Your task to perform on an android device: Go to network settings Image 0: 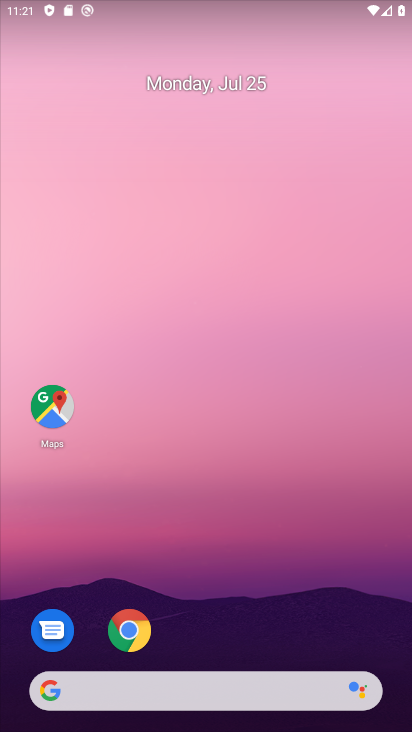
Step 0: click (271, 301)
Your task to perform on an android device: Go to network settings Image 1: 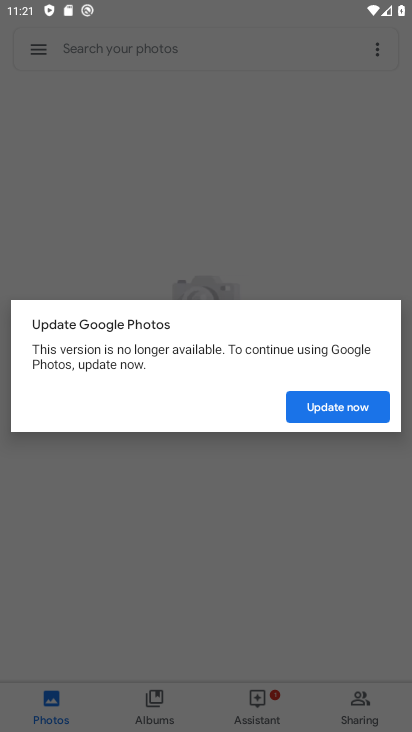
Step 1: click (245, 184)
Your task to perform on an android device: Go to network settings Image 2: 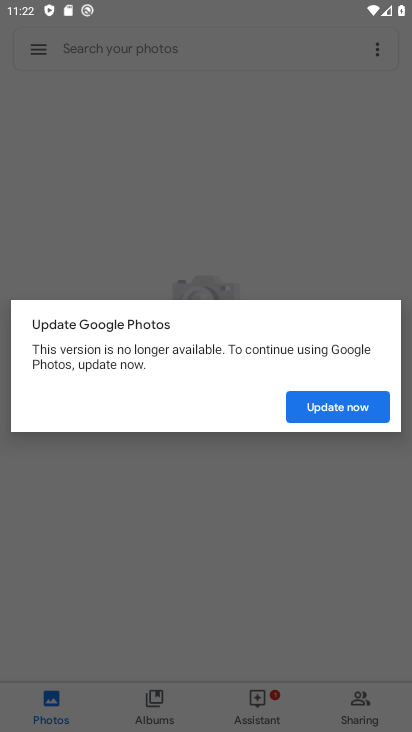
Step 2: click (285, 188)
Your task to perform on an android device: Go to network settings Image 3: 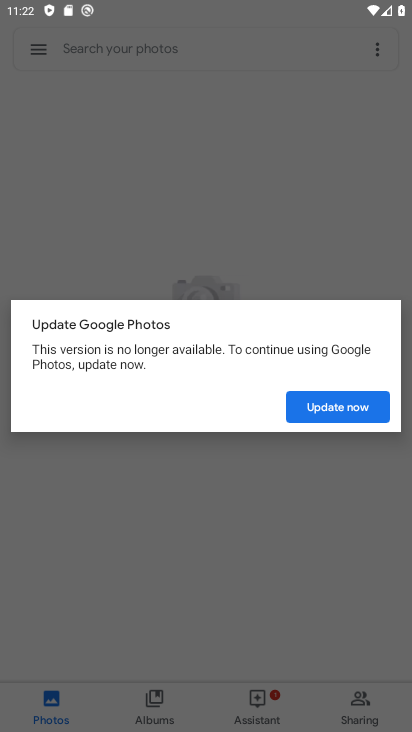
Step 3: press back button
Your task to perform on an android device: Go to network settings Image 4: 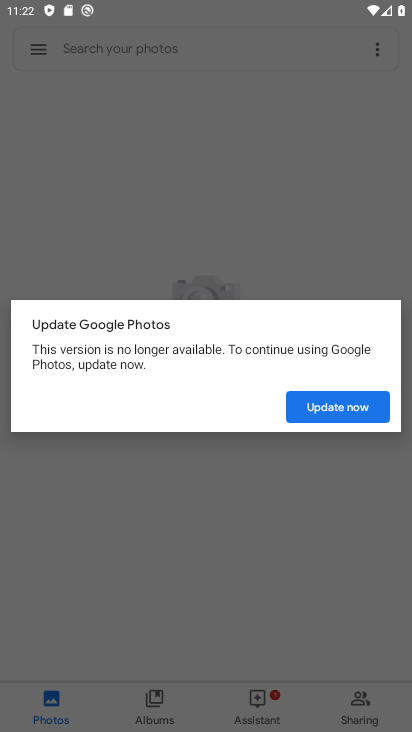
Step 4: press back button
Your task to perform on an android device: Go to network settings Image 5: 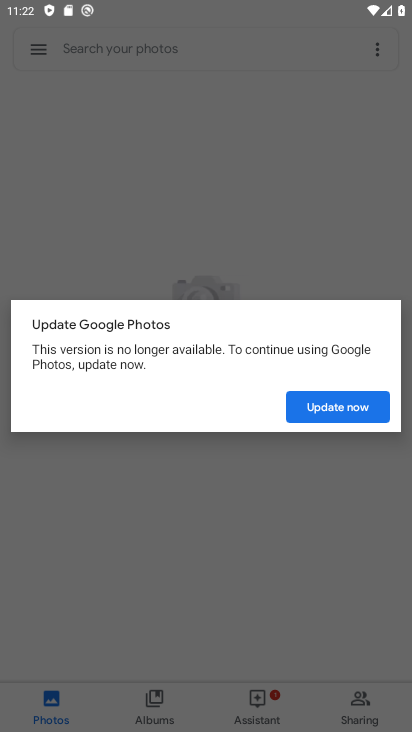
Step 5: press back button
Your task to perform on an android device: Go to network settings Image 6: 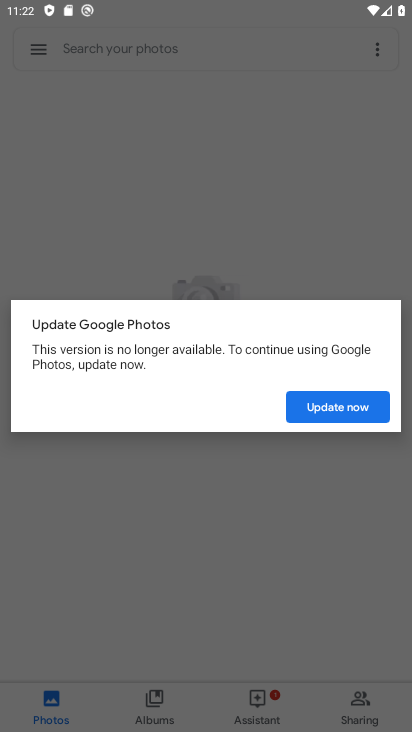
Step 6: click (337, 207)
Your task to perform on an android device: Go to network settings Image 7: 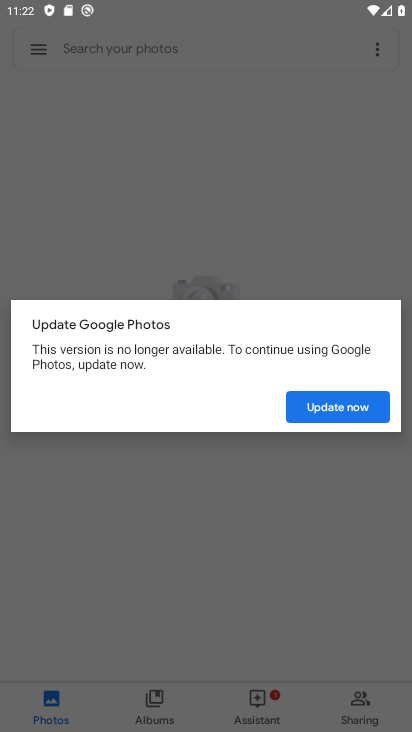
Step 7: press home button
Your task to perform on an android device: Go to network settings Image 8: 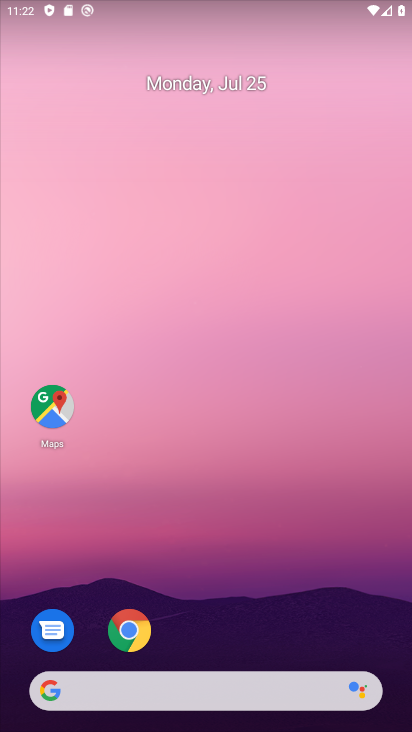
Step 8: drag from (182, 652) to (168, 169)
Your task to perform on an android device: Go to network settings Image 9: 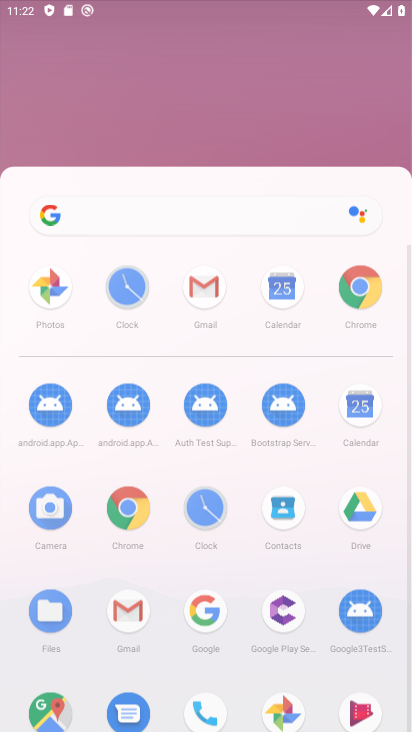
Step 9: drag from (207, 567) to (240, 273)
Your task to perform on an android device: Go to network settings Image 10: 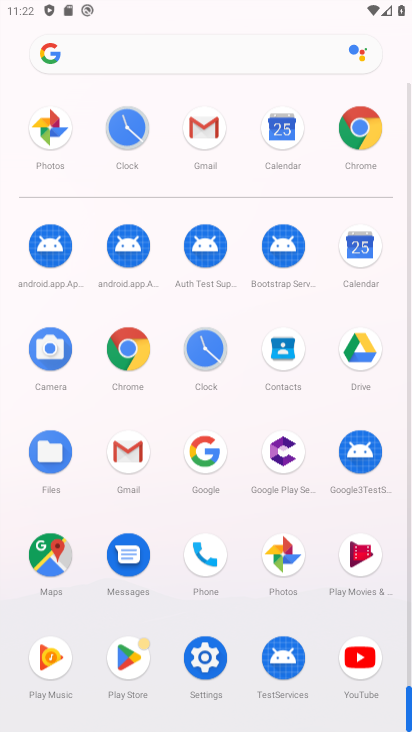
Step 10: click (255, 219)
Your task to perform on an android device: Go to network settings Image 11: 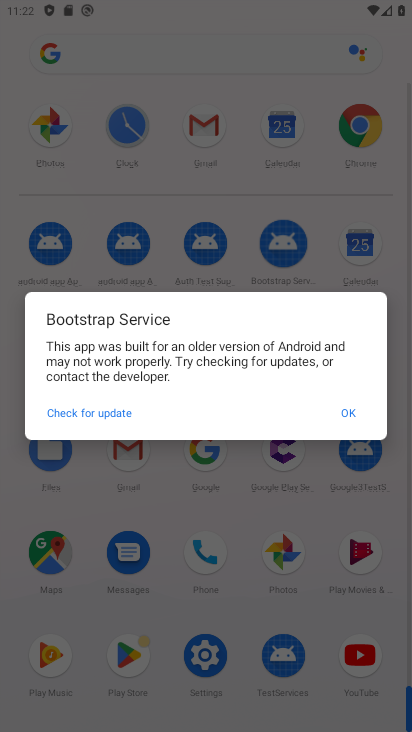
Step 11: click (204, 651)
Your task to perform on an android device: Go to network settings Image 12: 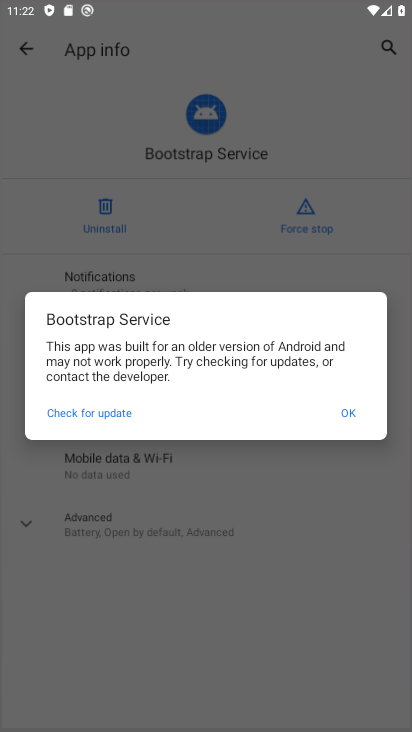
Step 12: click (204, 650)
Your task to perform on an android device: Go to network settings Image 13: 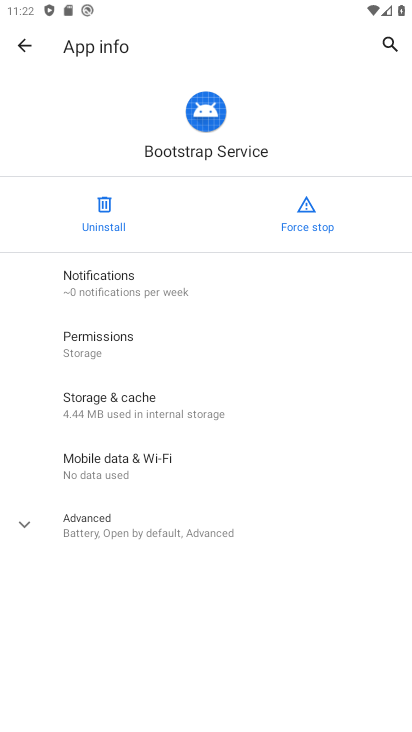
Step 13: click (23, 45)
Your task to perform on an android device: Go to network settings Image 14: 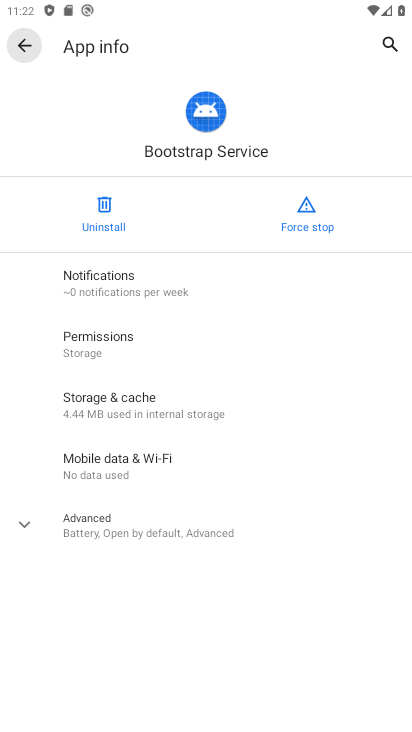
Step 14: click (22, 45)
Your task to perform on an android device: Go to network settings Image 15: 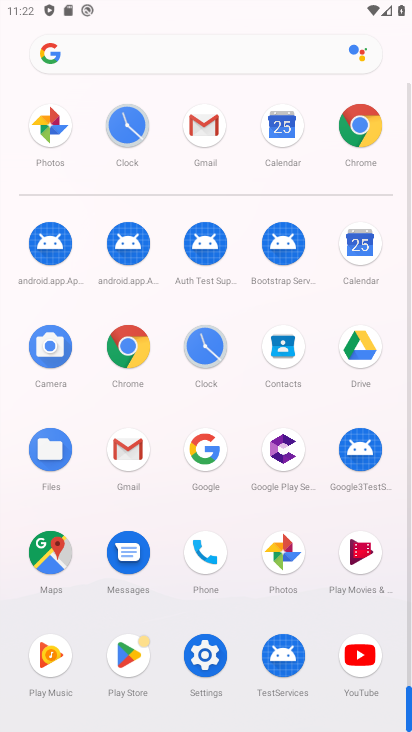
Step 15: click (212, 669)
Your task to perform on an android device: Go to network settings Image 16: 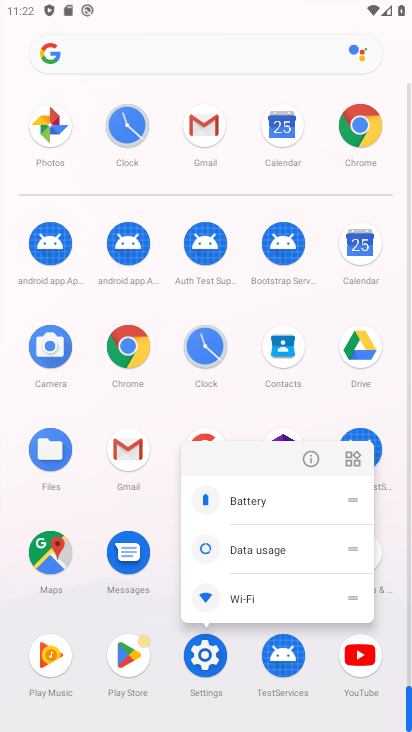
Step 16: click (212, 669)
Your task to perform on an android device: Go to network settings Image 17: 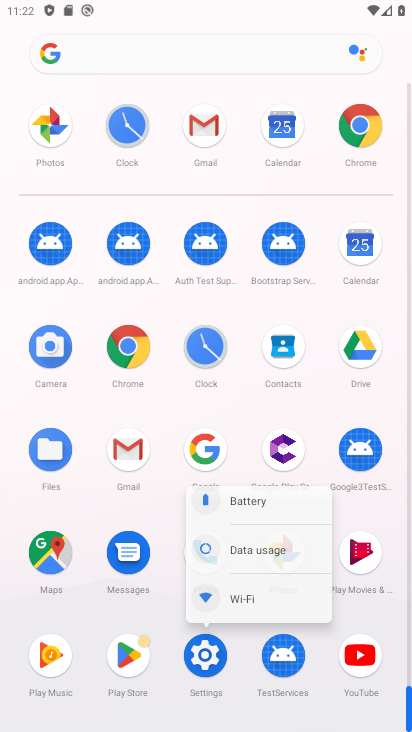
Step 17: click (212, 669)
Your task to perform on an android device: Go to network settings Image 18: 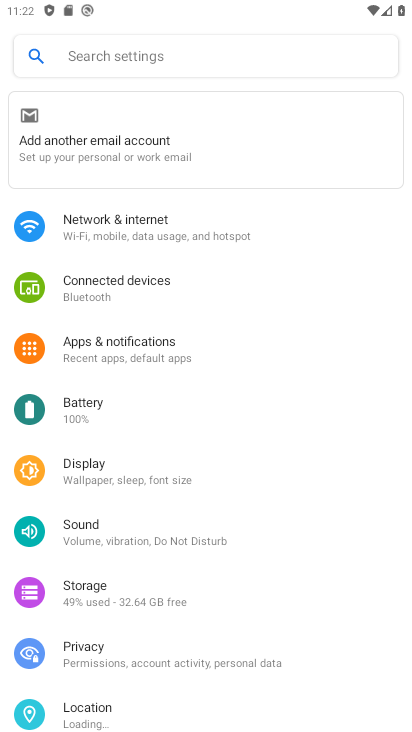
Step 18: click (118, 218)
Your task to perform on an android device: Go to network settings Image 19: 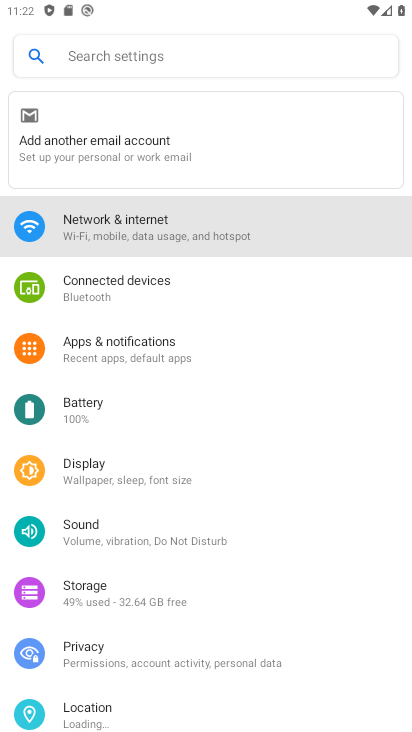
Step 19: click (118, 220)
Your task to perform on an android device: Go to network settings Image 20: 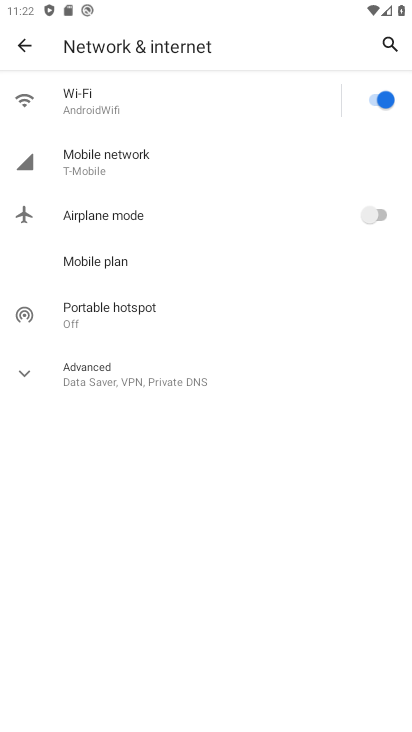
Step 20: task complete